Your task to perform on an android device: open app "Google Sheets" (install if not already installed) Image 0: 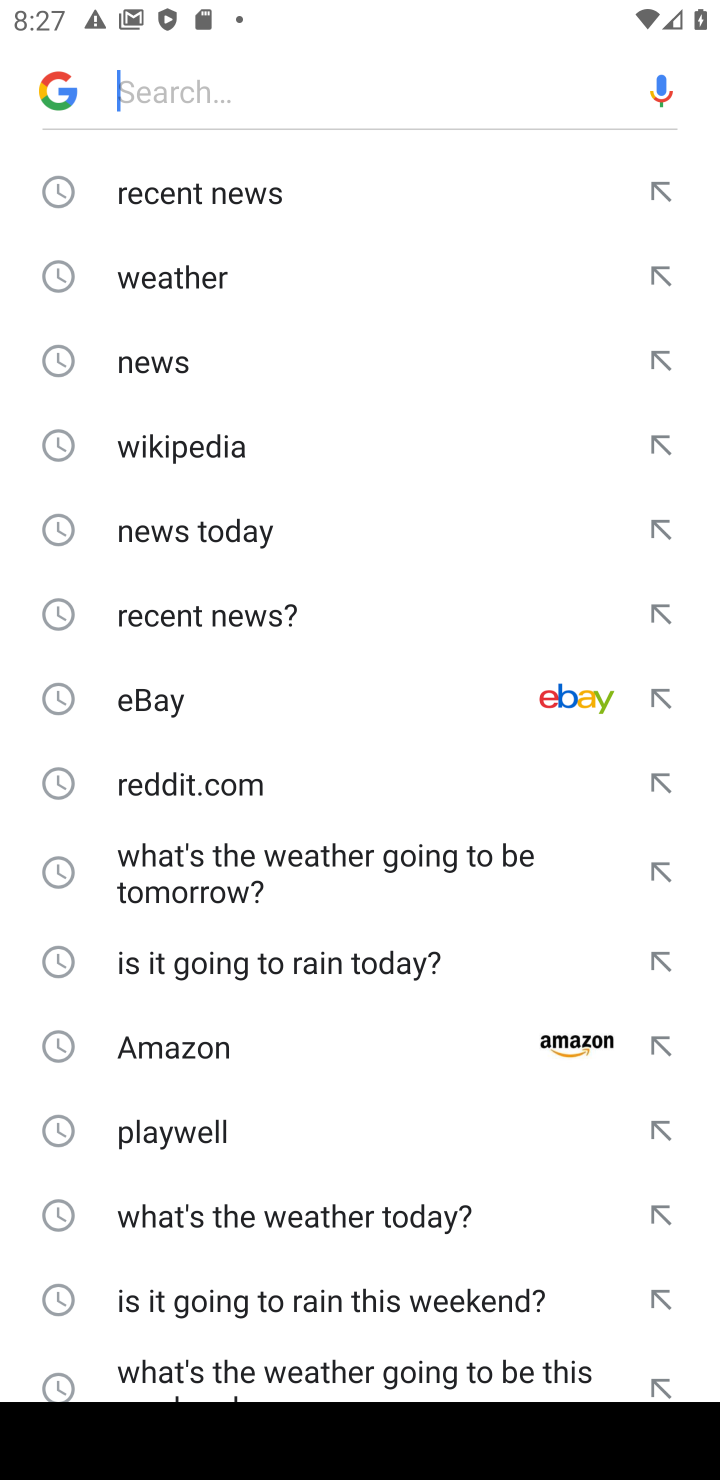
Step 0: press home button
Your task to perform on an android device: open app "Google Sheets" (install if not already installed) Image 1: 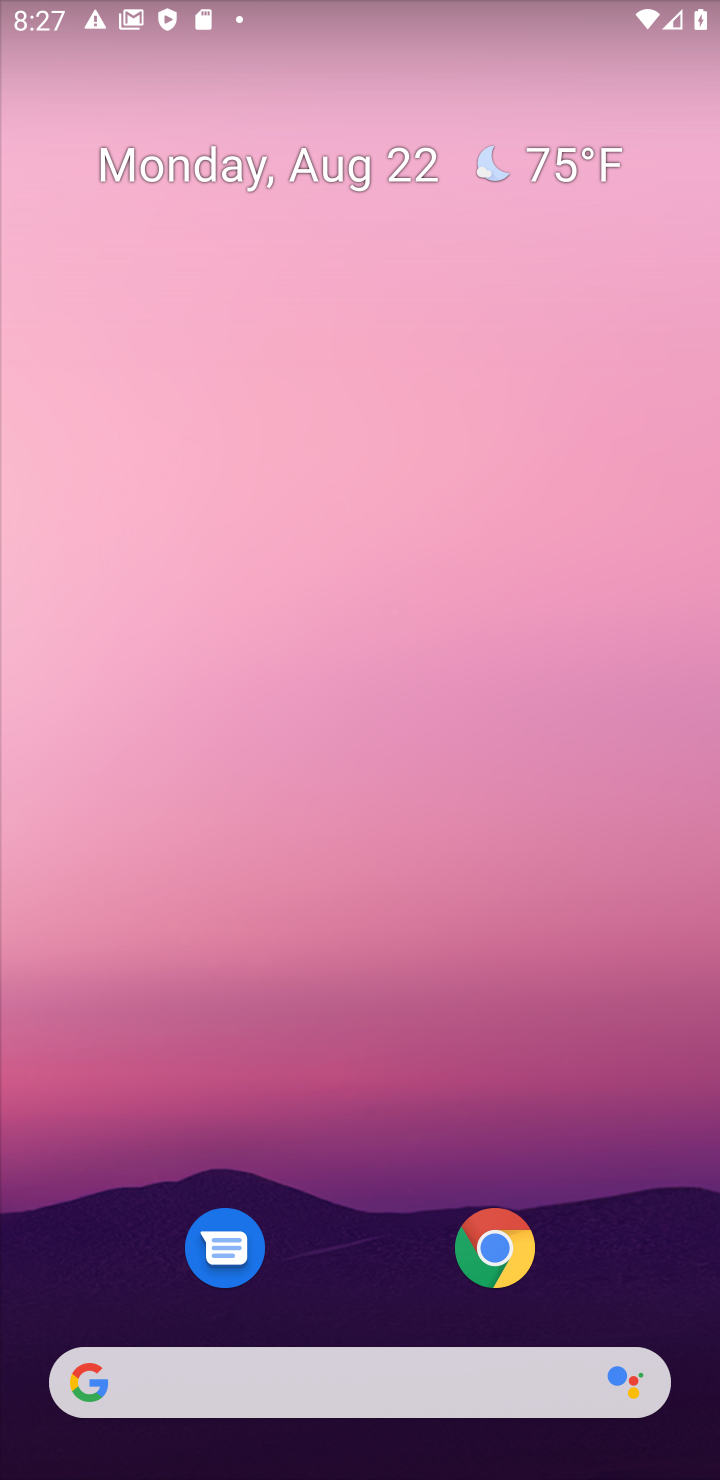
Step 1: drag from (347, 1311) to (307, 239)
Your task to perform on an android device: open app "Google Sheets" (install if not already installed) Image 2: 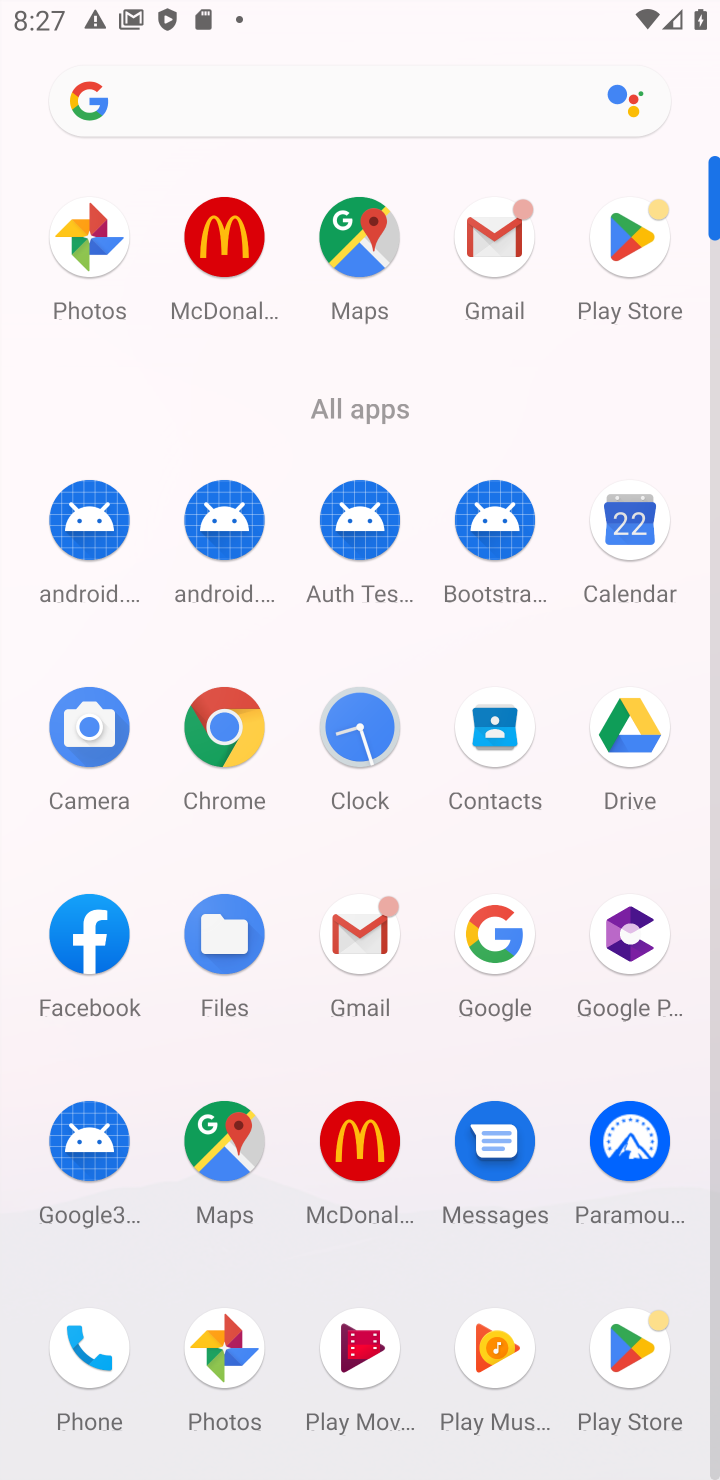
Step 2: click (624, 1349)
Your task to perform on an android device: open app "Google Sheets" (install if not already installed) Image 3: 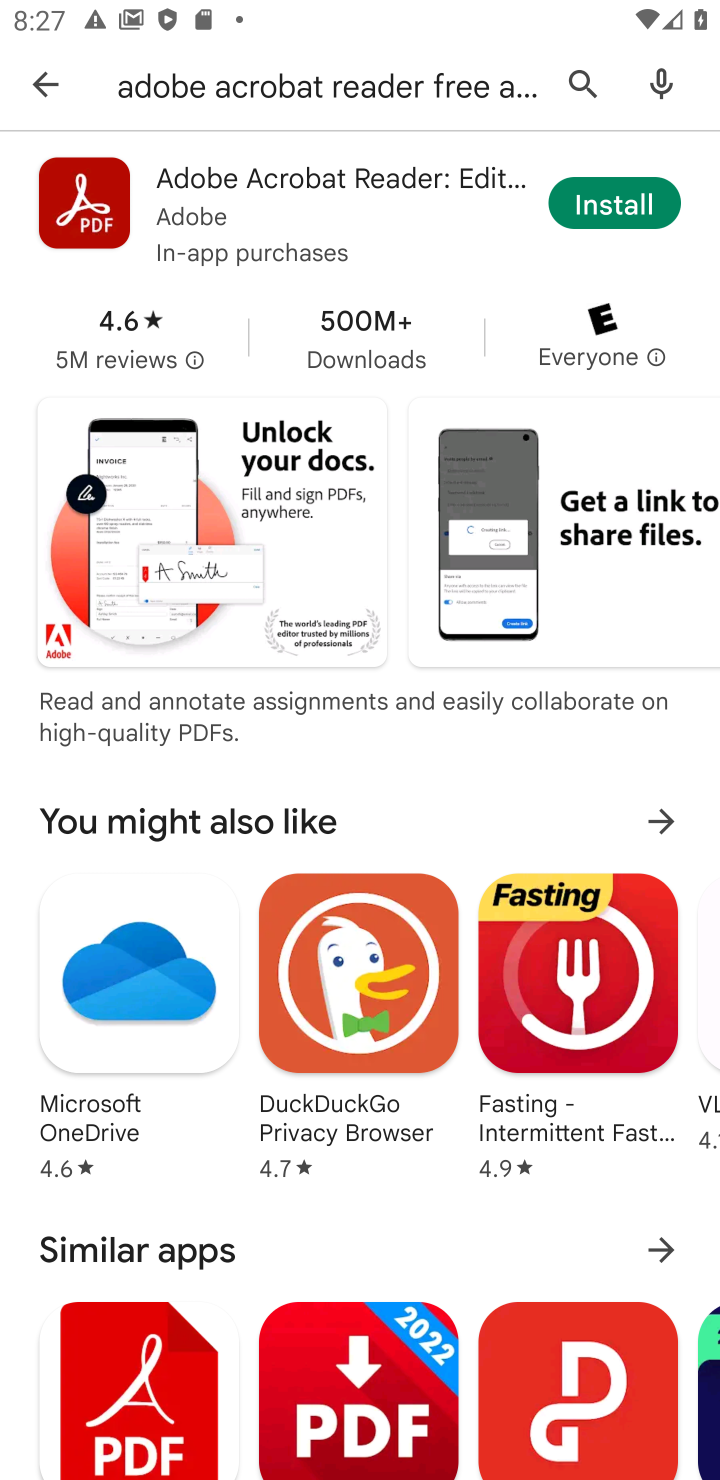
Step 3: click (578, 78)
Your task to perform on an android device: open app "Google Sheets" (install if not already installed) Image 4: 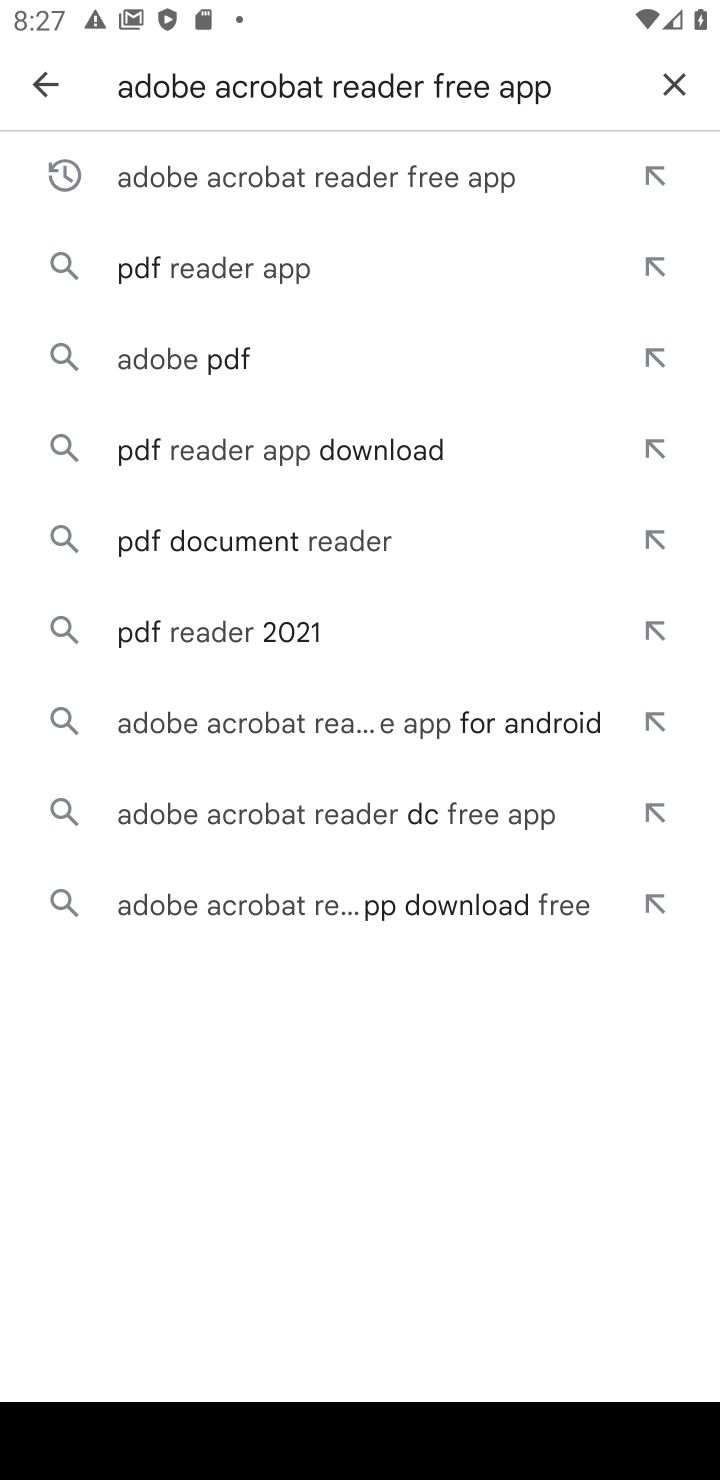
Step 4: click (674, 78)
Your task to perform on an android device: open app "Google Sheets" (install if not already installed) Image 5: 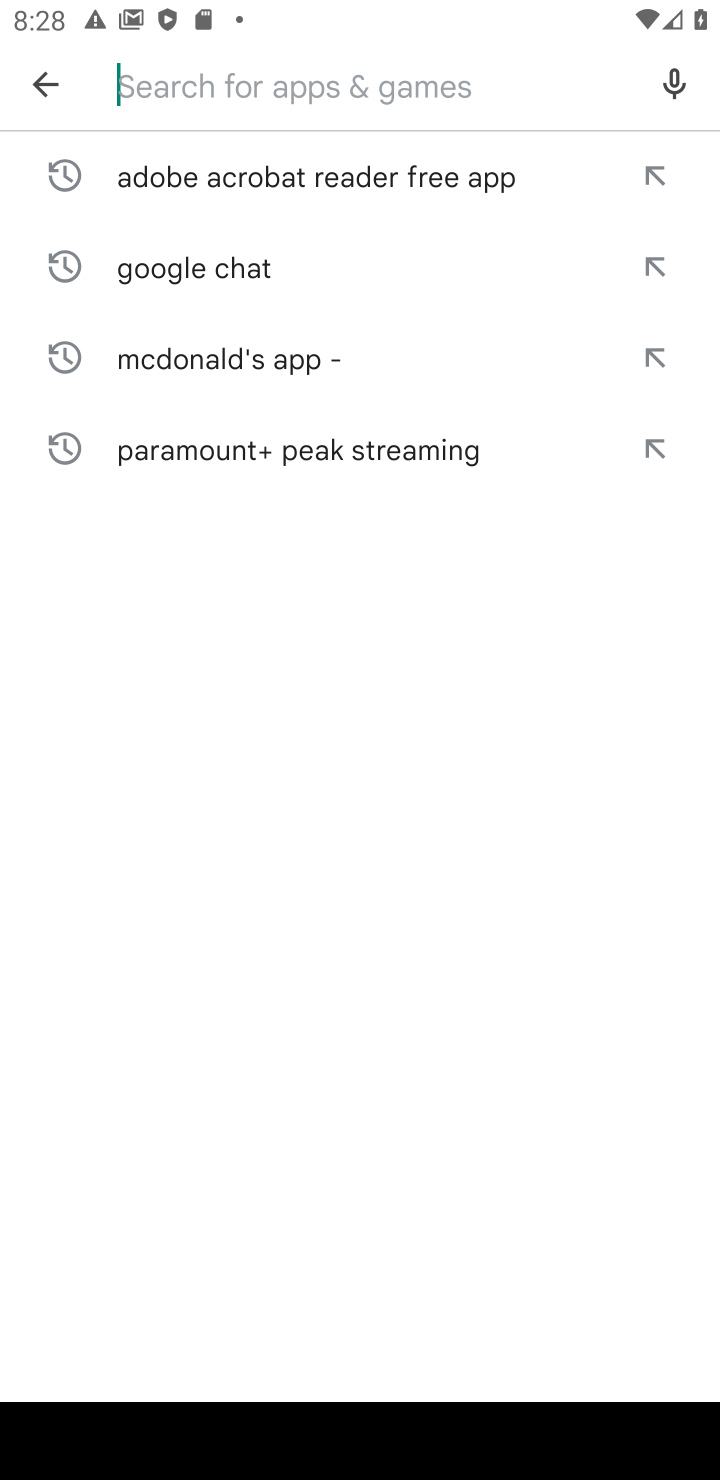
Step 5: type "Google Chat"
Your task to perform on an android device: open app "Google Sheets" (install if not already installed) Image 6: 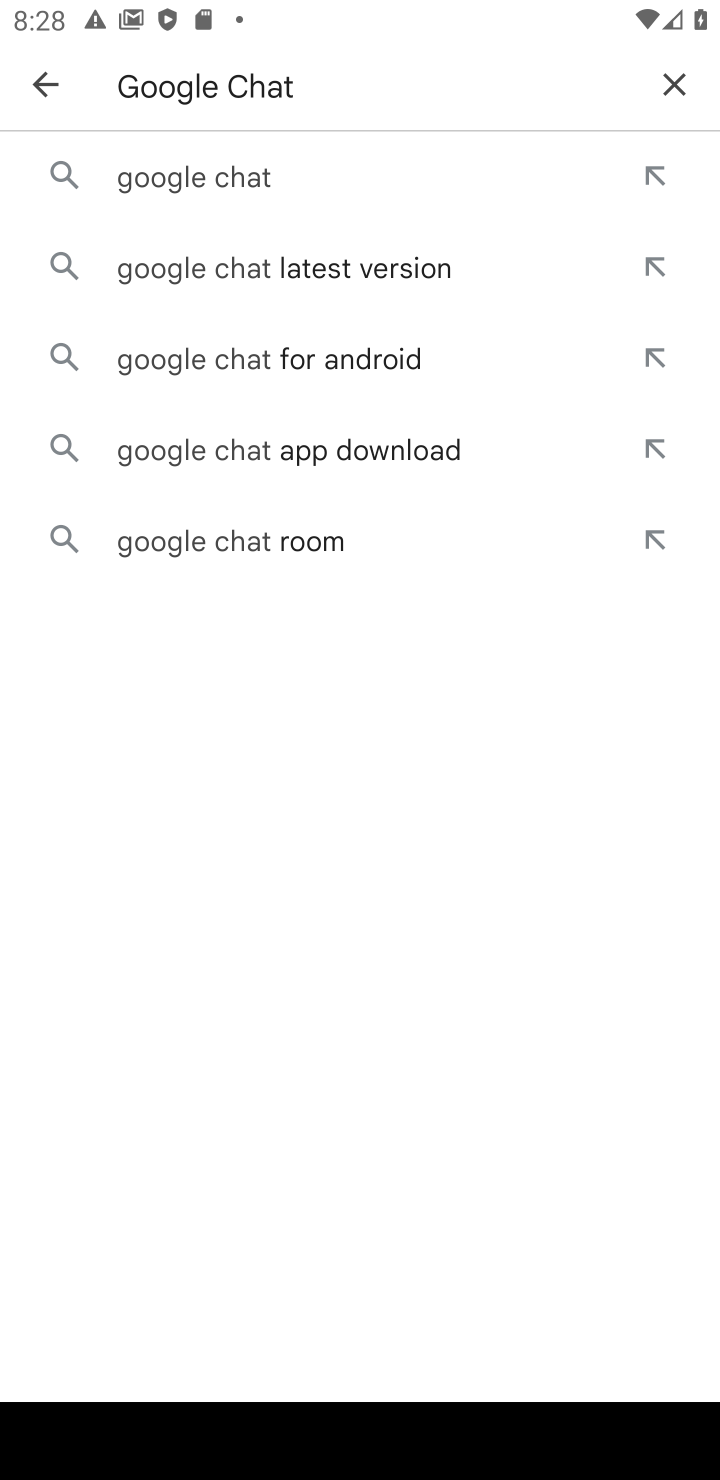
Step 6: click (242, 174)
Your task to perform on an android device: open app "Google Sheets" (install if not already installed) Image 7: 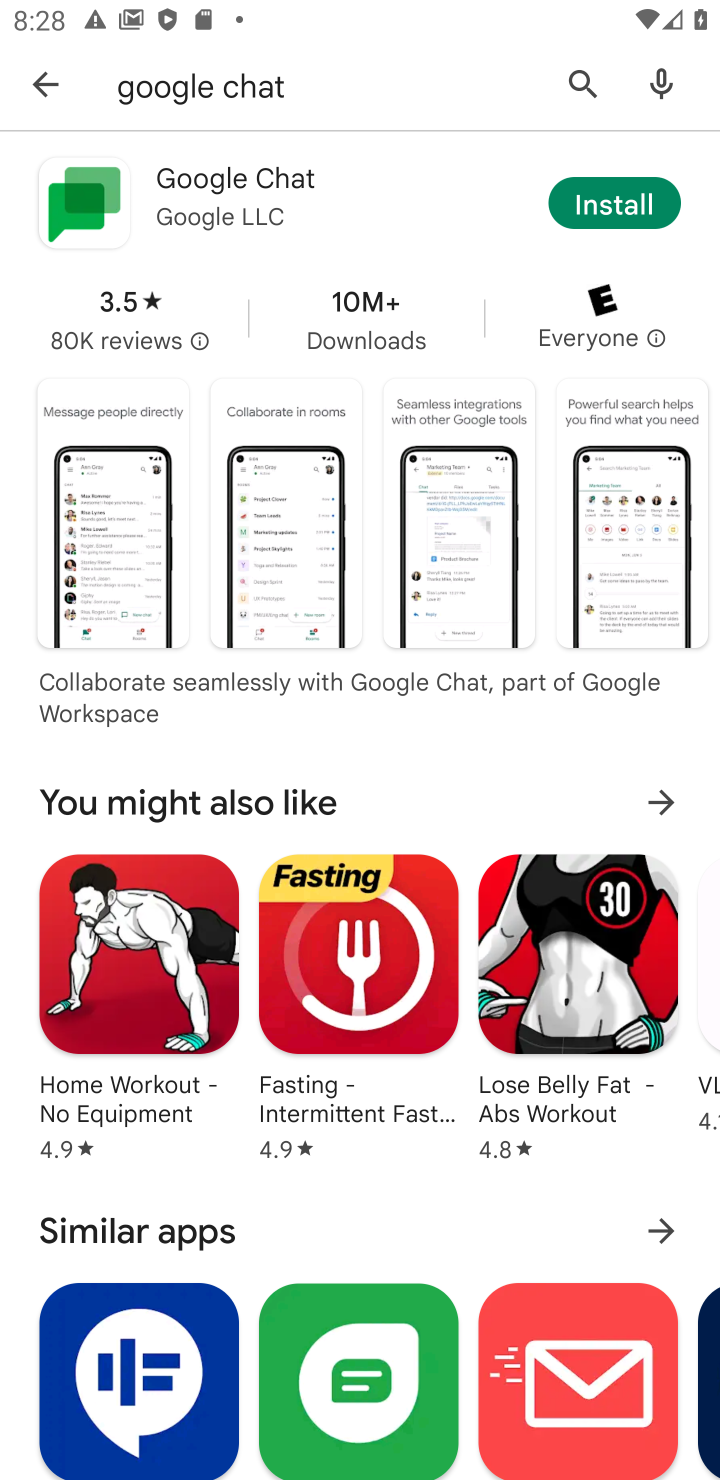
Step 7: click (597, 202)
Your task to perform on an android device: open app "Google Sheets" (install if not already installed) Image 8: 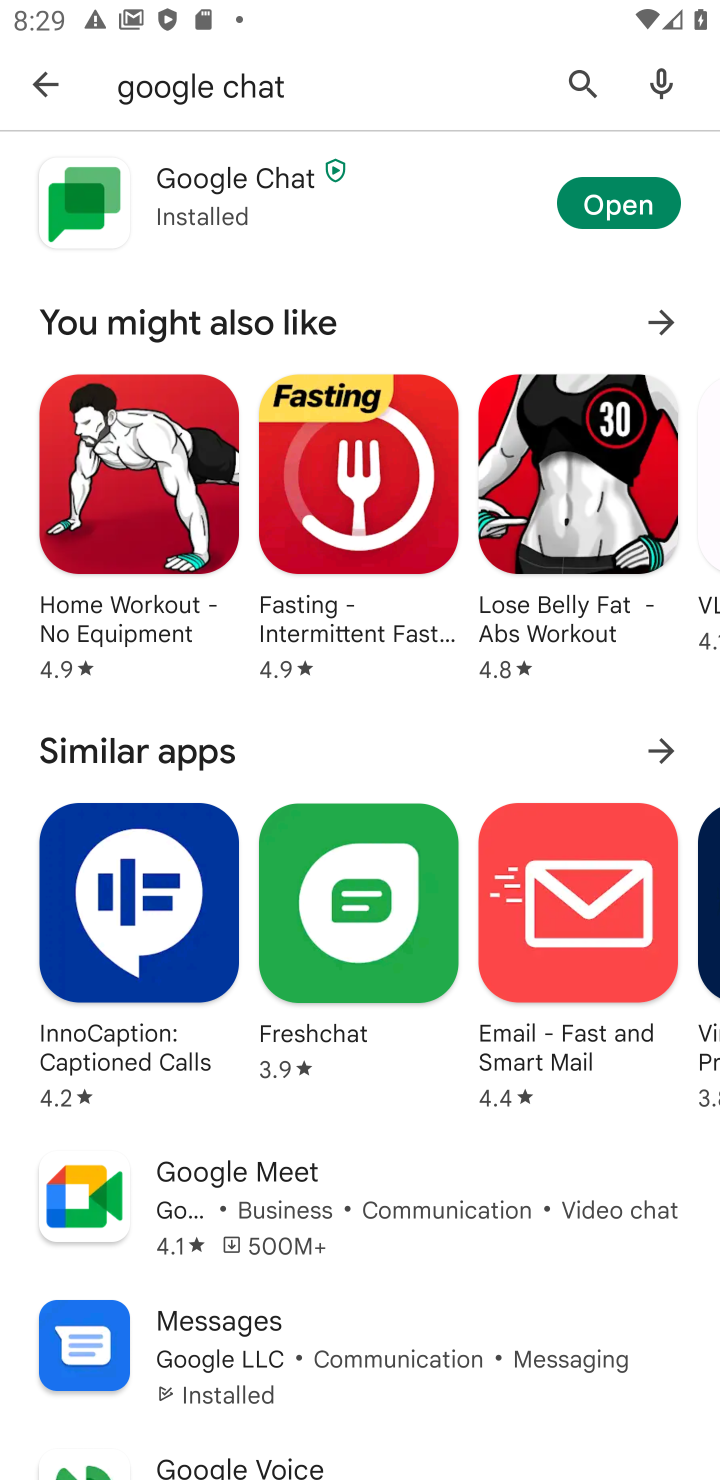
Step 8: click (631, 203)
Your task to perform on an android device: open app "Google Sheets" (install if not already installed) Image 9: 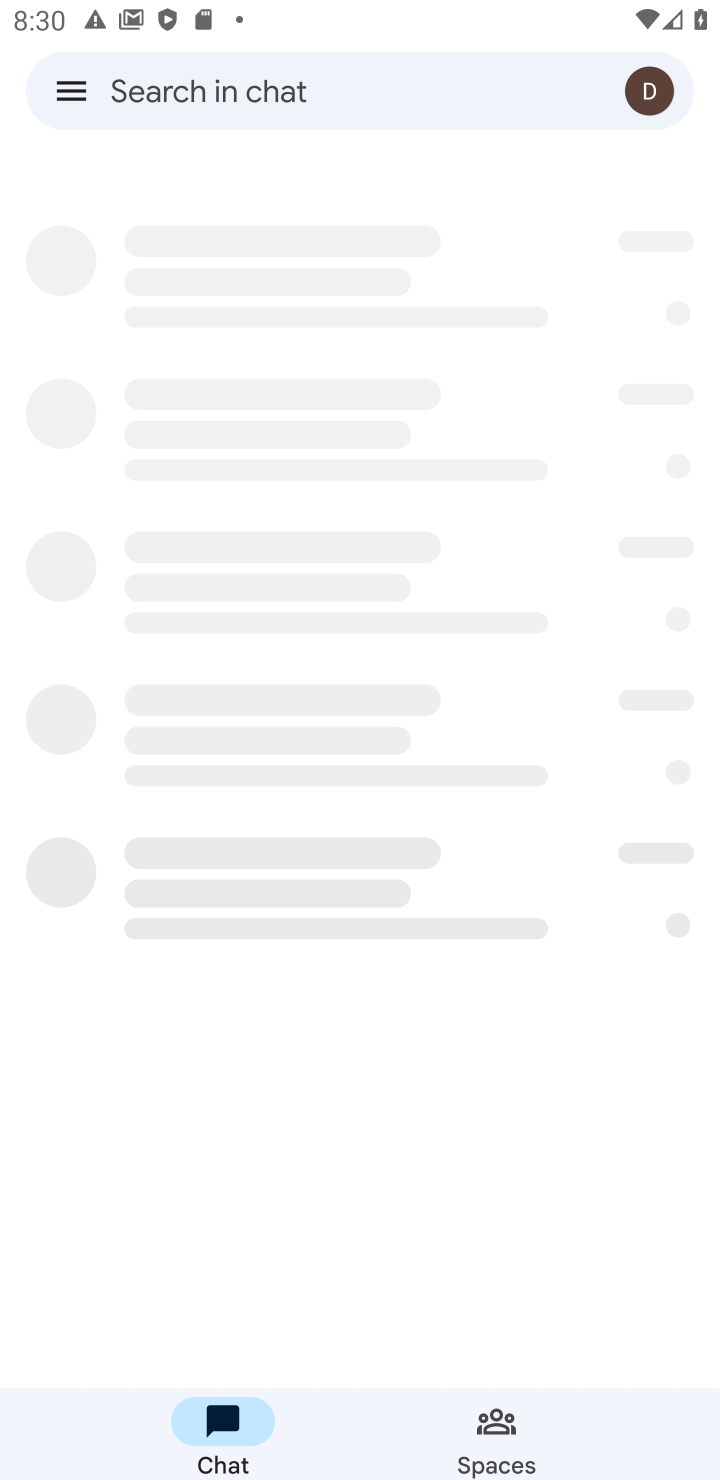
Step 9: task complete